Your task to perform on an android device: Open wifi settings Image 0: 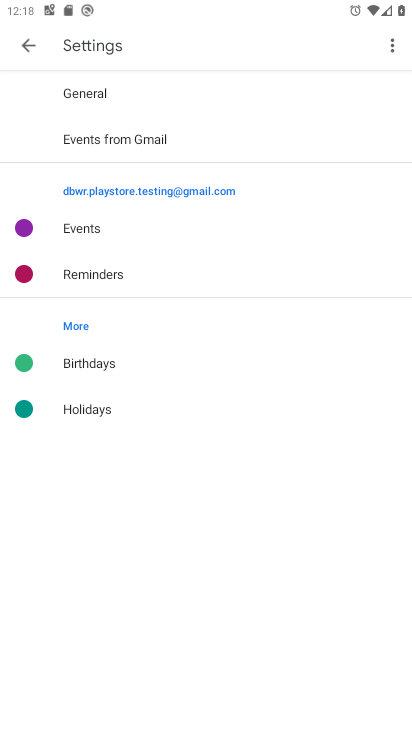
Step 0: press home button
Your task to perform on an android device: Open wifi settings Image 1: 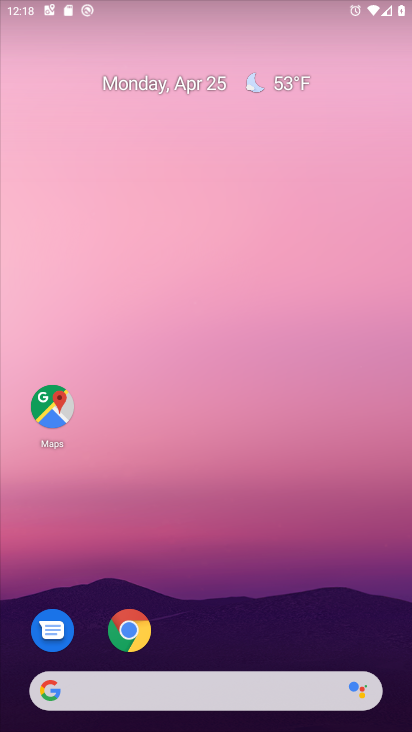
Step 1: drag from (178, 554) to (203, 195)
Your task to perform on an android device: Open wifi settings Image 2: 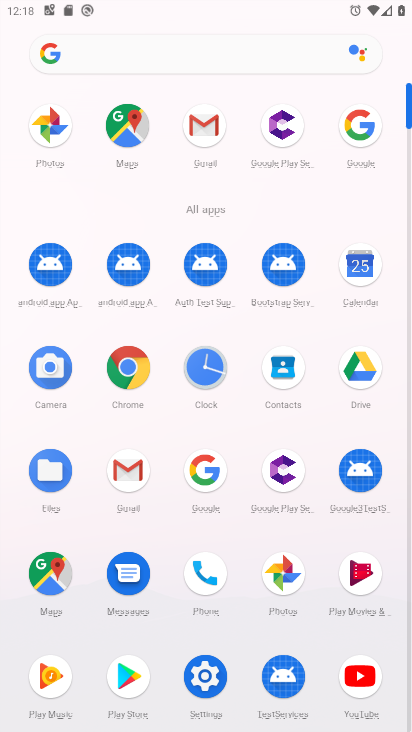
Step 2: click (198, 696)
Your task to perform on an android device: Open wifi settings Image 3: 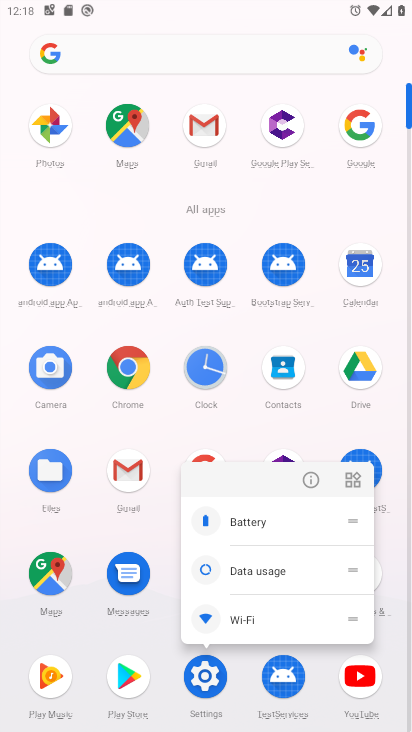
Step 3: click (308, 474)
Your task to perform on an android device: Open wifi settings Image 4: 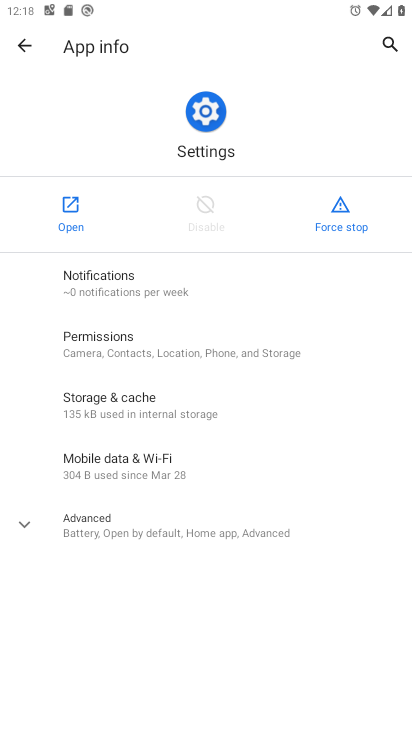
Step 4: click (65, 228)
Your task to perform on an android device: Open wifi settings Image 5: 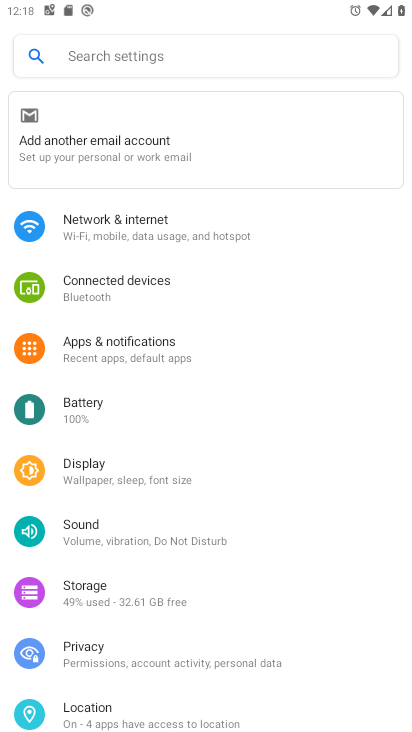
Step 5: click (150, 232)
Your task to perform on an android device: Open wifi settings Image 6: 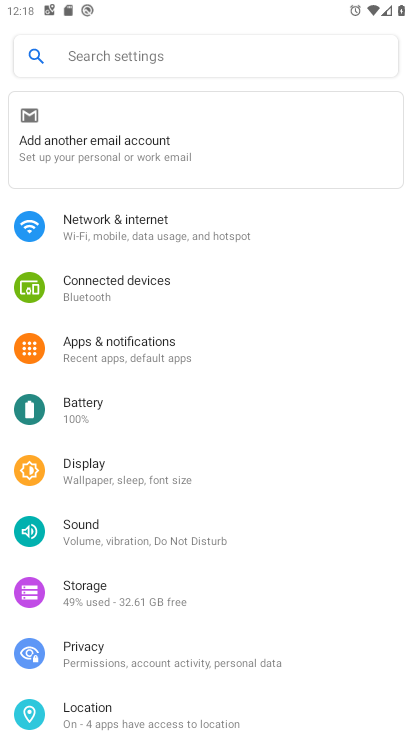
Step 6: click (150, 232)
Your task to perform on an android device: Open wifi settings Image 7: 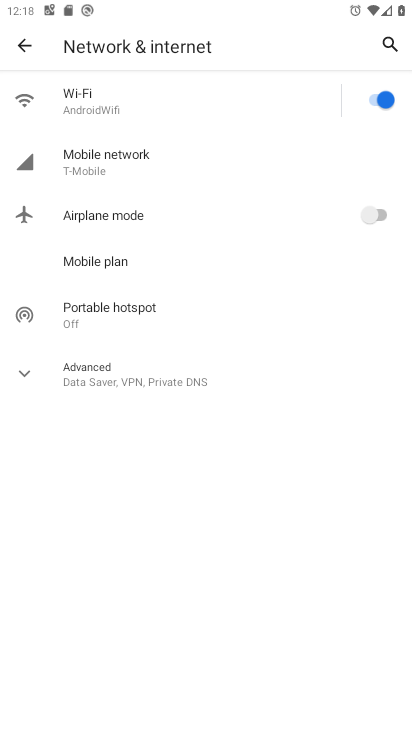
Step 7: click (114, 118)
Your task to perform on an android device: Open wifi settings Image 8: 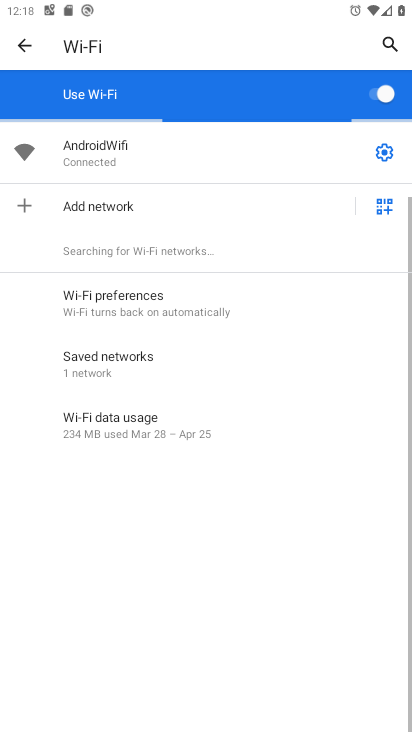
Step 8: click (380, 160)
Your task to perform on an android device: Open wifi settings Image 9: 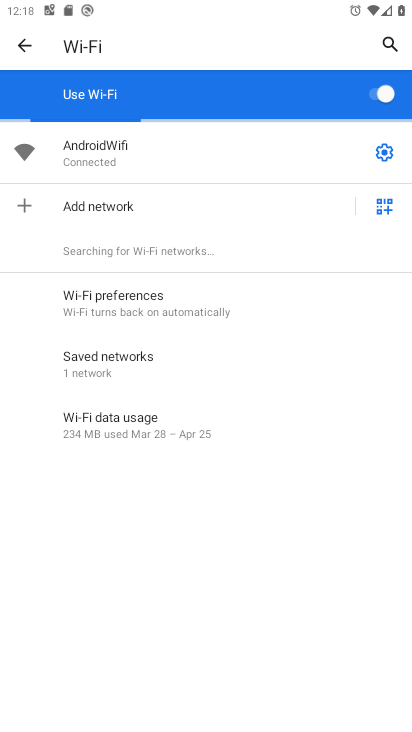
Step 9: task complete